Your task to perform on an android device: turn off location history Image 0: 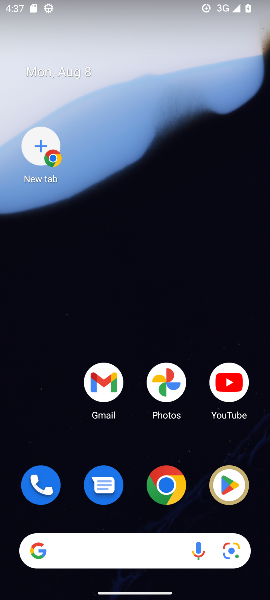
Step 0: drag from (156, 464) to (124, 262)
Your task to perform on an android device: turn off location history Image 1: 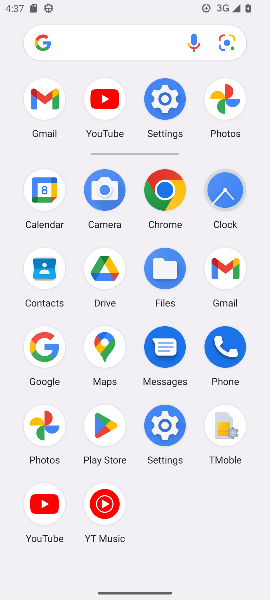
Step 1: click (170, 109)
Your task to perform on an android device: turn off location history Image 2: 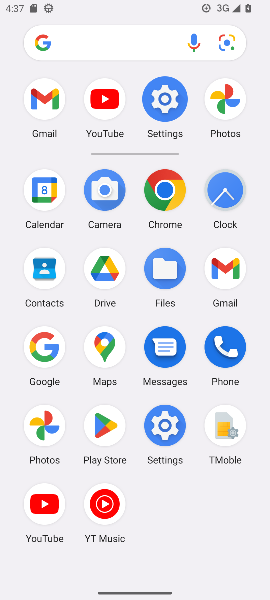
Step 2: click (162, 104)
Your task to perform on an android device: turn off location history Image 3: 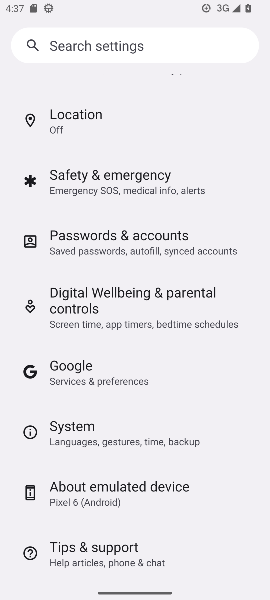
Step 3: click (58, 130)
Your task to perform on an android device: turn off location history Image 4: 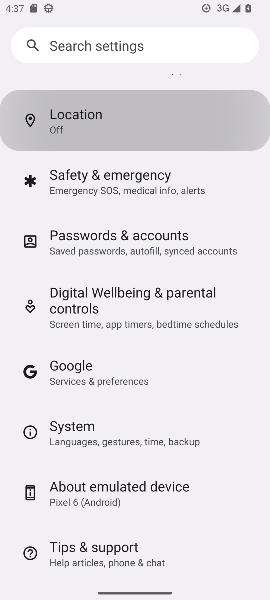
Step 4: click (65, 136)
Your task to perform on an android device: turn off location history Image 5: 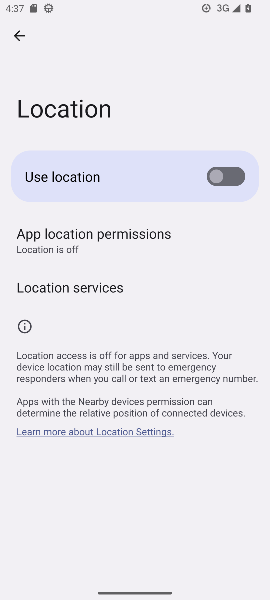
Step 5: task complete